Your task to perform on an android device: remove spam from my inbox in the gmail app Image 0: 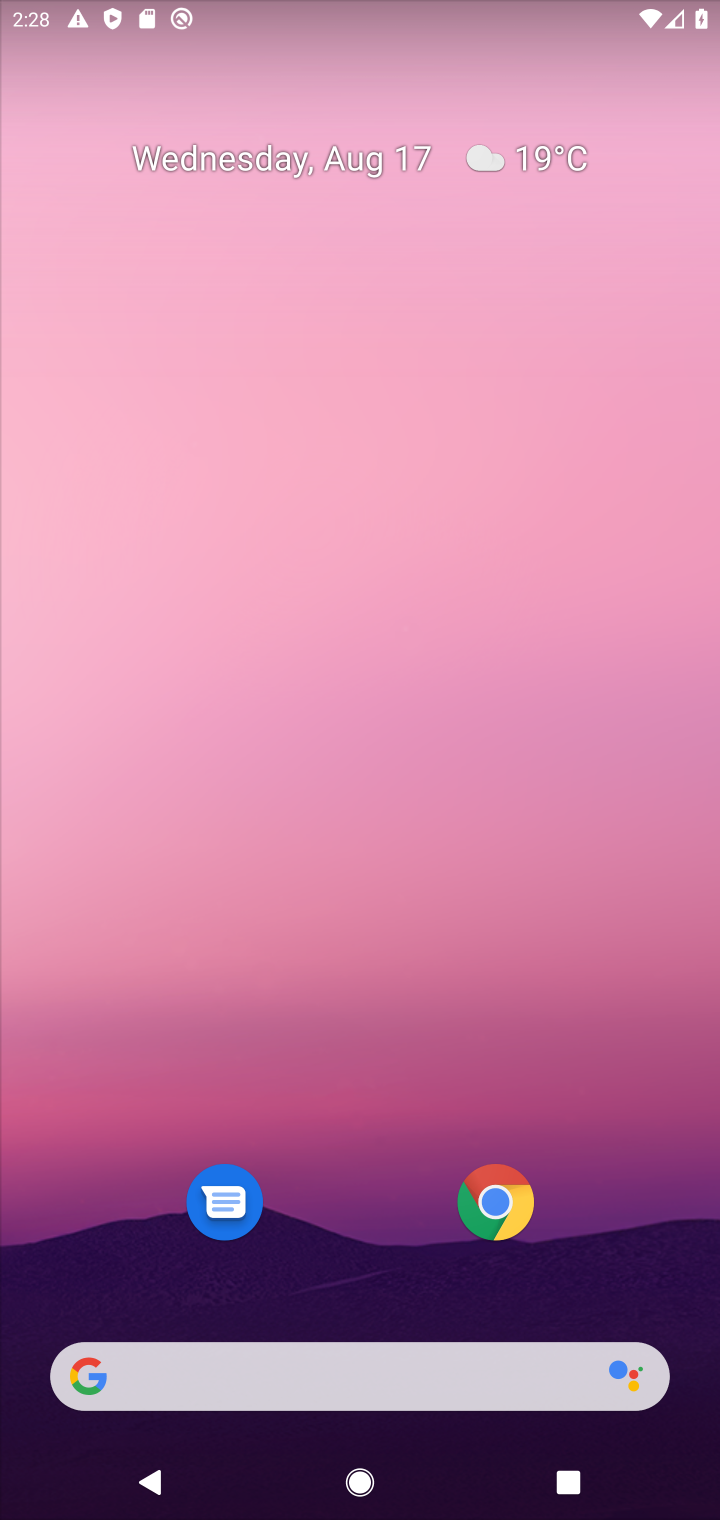
Step 0: drag from (336, 1283) to (233, 363)
Your task to perform on an android device: remove spam from my inbox in the gmail app Image 1: 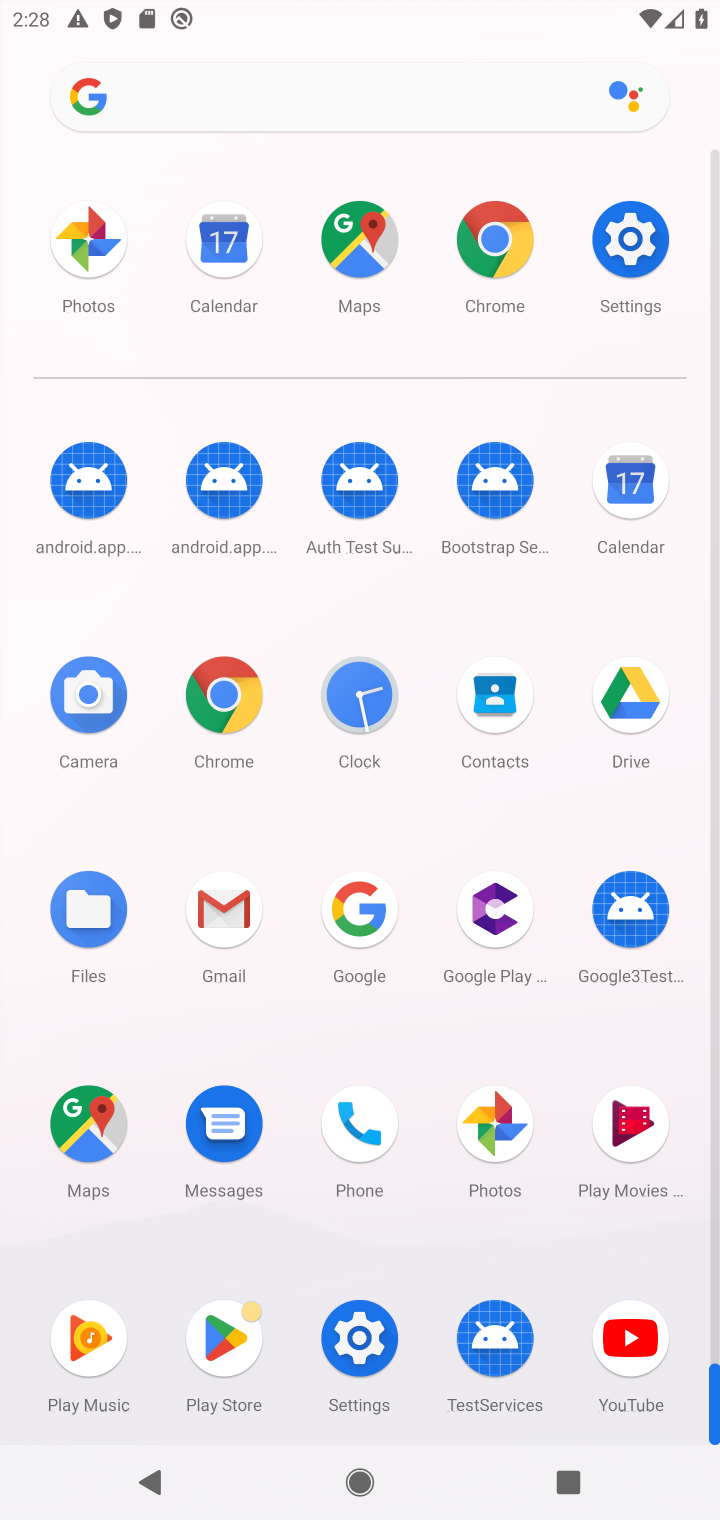
Step 1: click (214, 907)
Your task to perform on an android device: remove spam from my inbox in the gmail app Image 2: 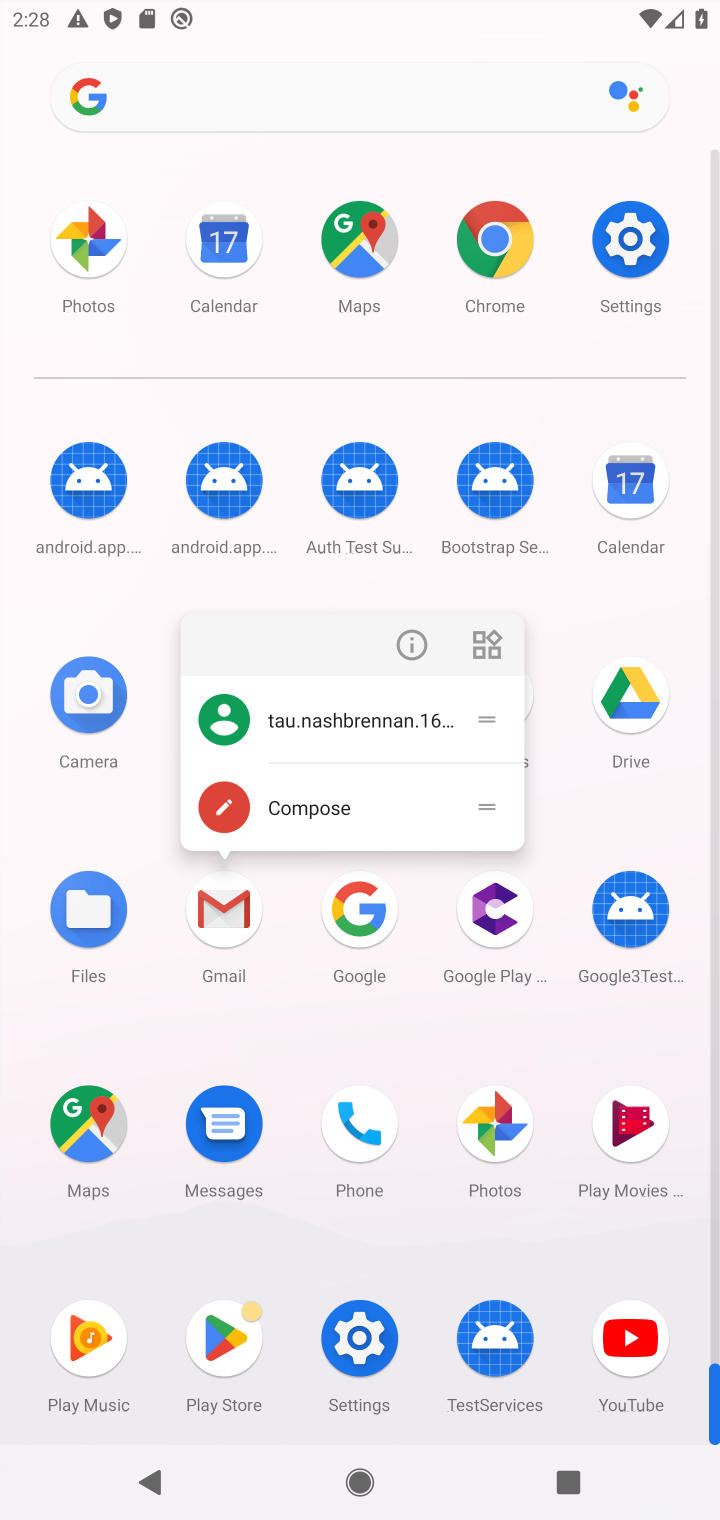
Step 2: click (197, 943)
Your task to perform on an android device: remove spam from my inbox in the gmail app Image 3: 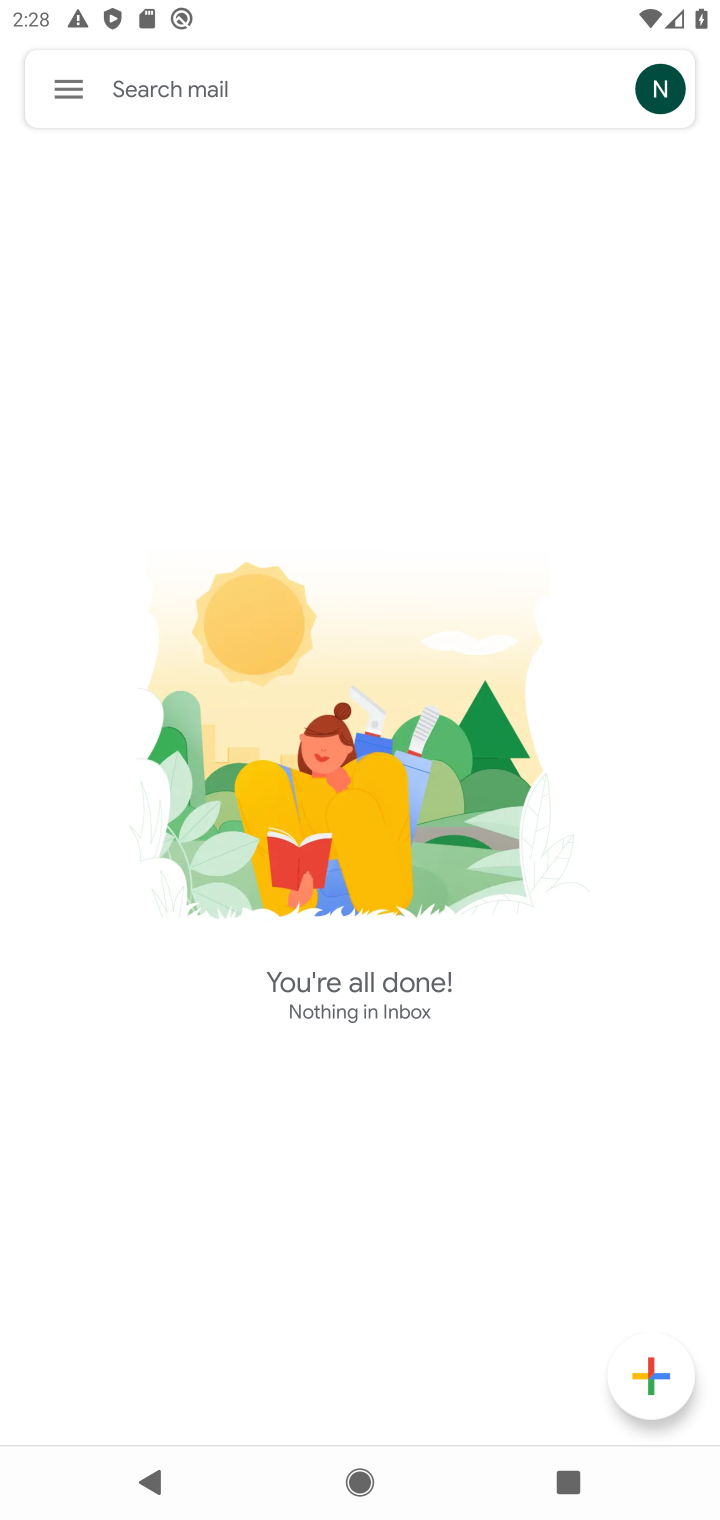
Step 3: click (71, 87)
Your task to perform on an android device: remove spam from my inbox in the gmail app Image 4: 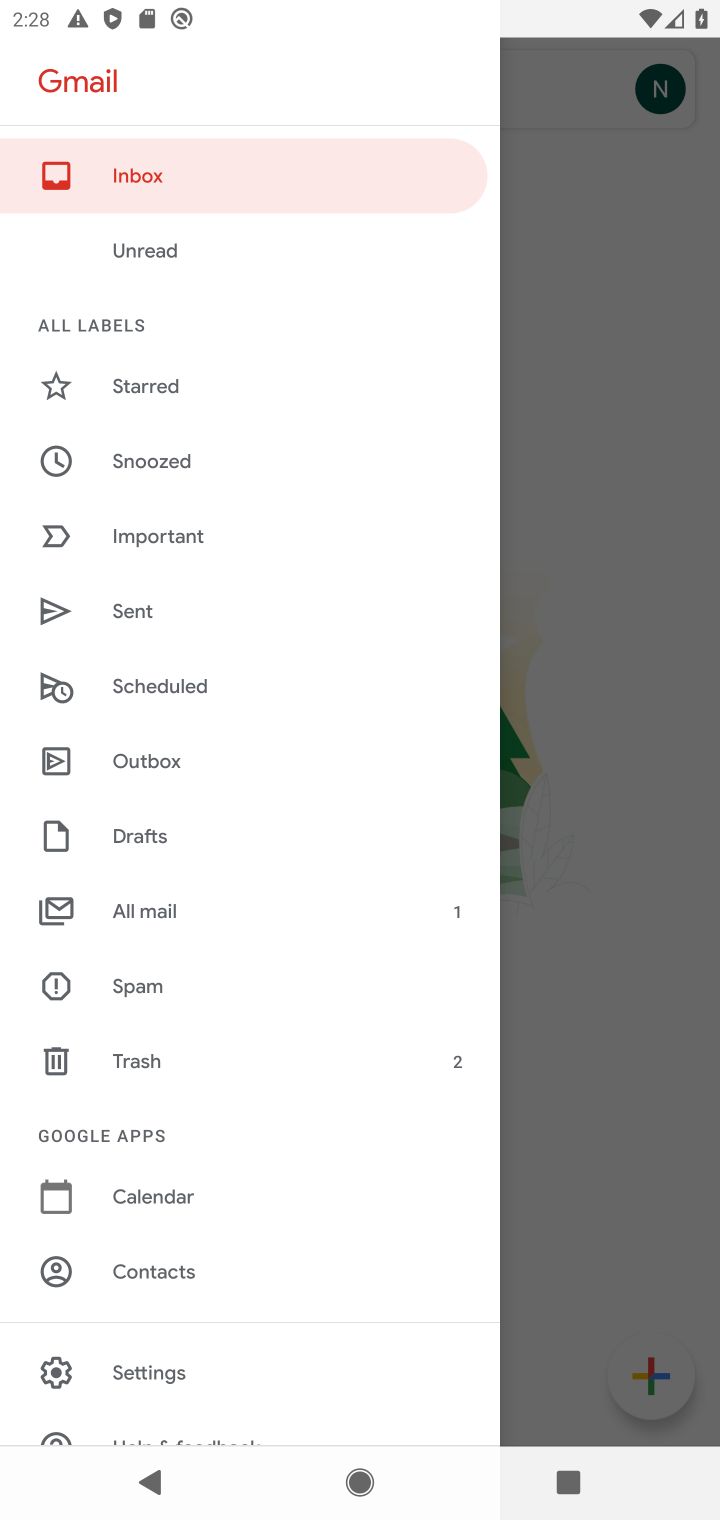
Step 4: click (173, 1005)
Your task to perform on an android device: remove spam from my inbox in the gmail app Image 5: 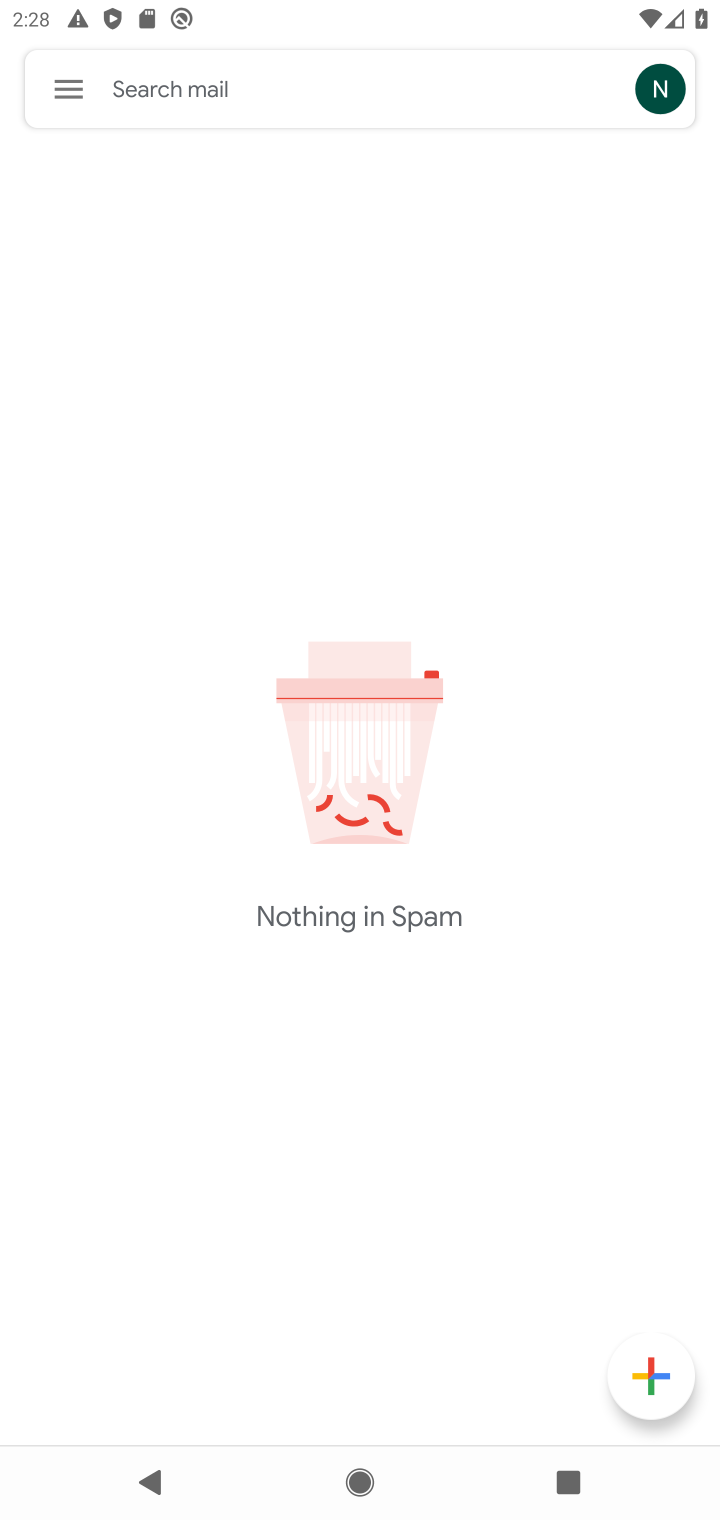
Step 5: task complete